Your task to perform on an android device: Go to sound settings Image 0: 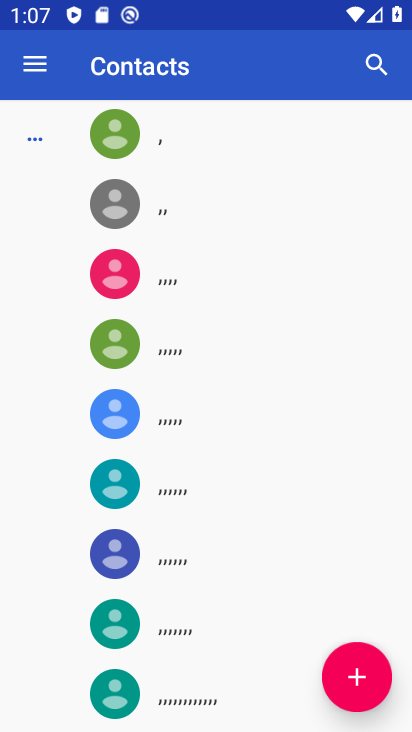
Step 0: press back button
Your task to perform on an android device: Go to sound settings Image 1: 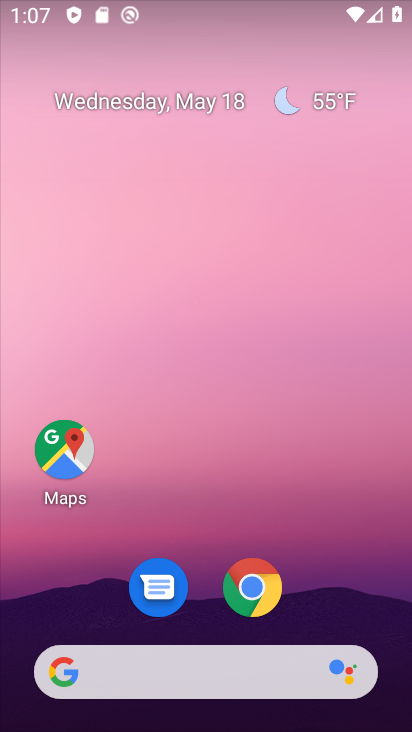
Step 1: drag from (223, 581) to (304, 19)
Your task to perform on an android device: Go to sound settings Image 2: 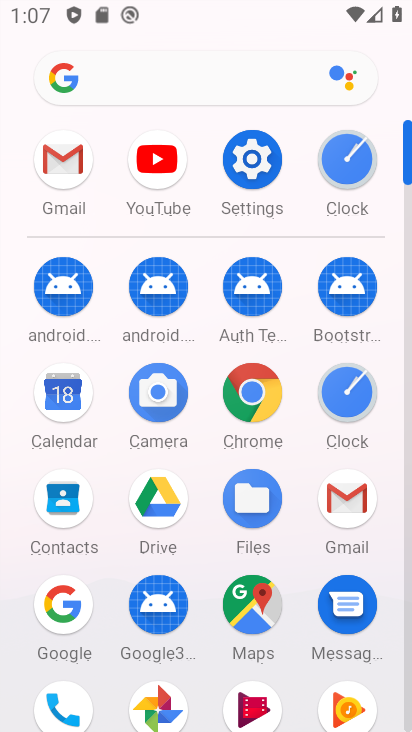
Step 2: click (260, 158)
Your task to perform on an android device: Go to sound settings Image 3: 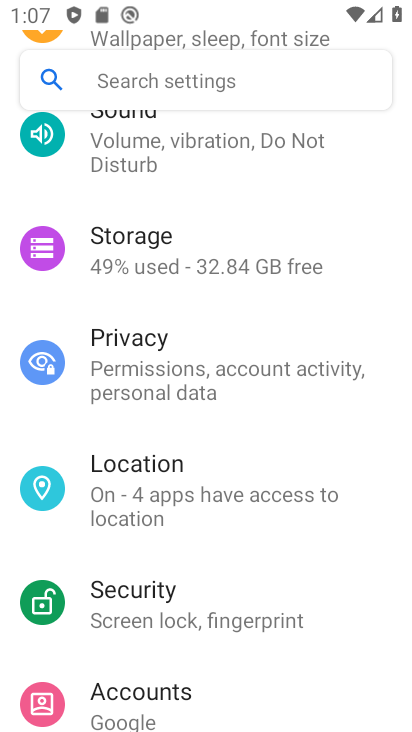
Step 3: click (155, 158)
Your task to perform on an android device: Go to sound settings Image 4: 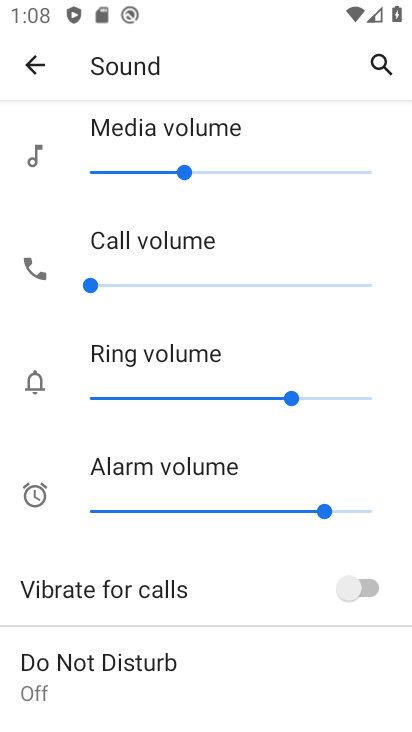
Step 4: task complete